Your task to perform on an android device: Check the news Image 0: 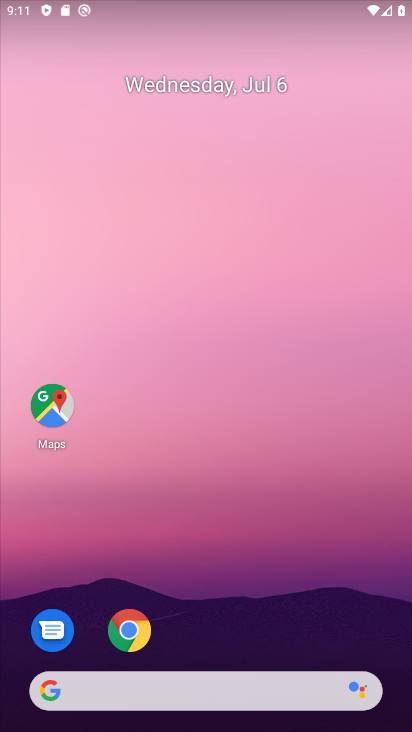
Step 0: drag from (186, 437) to (201, 145)
Your task to perform on an android device: Check the news Image 1: 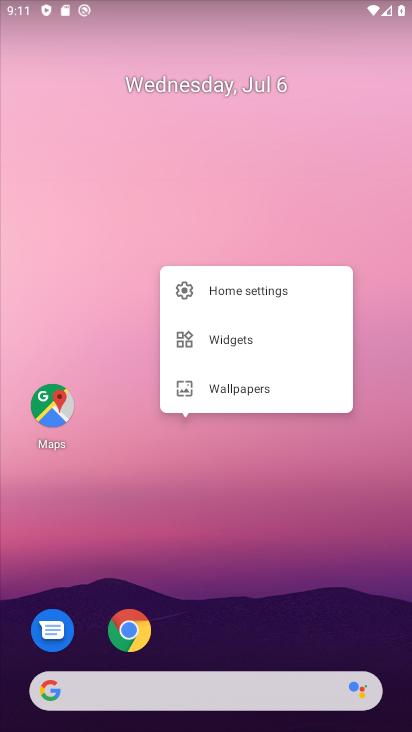
Step 1: drag from (204, 669) to (172, 196)
Your task to perform on an android device: Check the news Image 2: 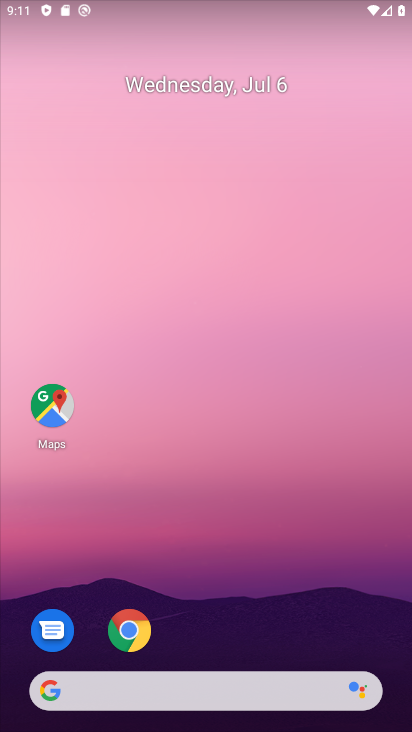
Step 2: click (201, 232)
Your task to perform on an android device: Check the news Image 3: 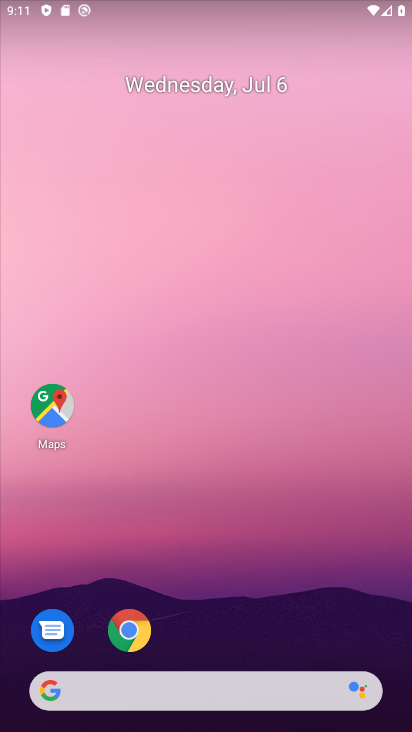
Step 3: drag from (217, 252) to (217, 164)
Your task to perform on an android device: Check the news Image 4: 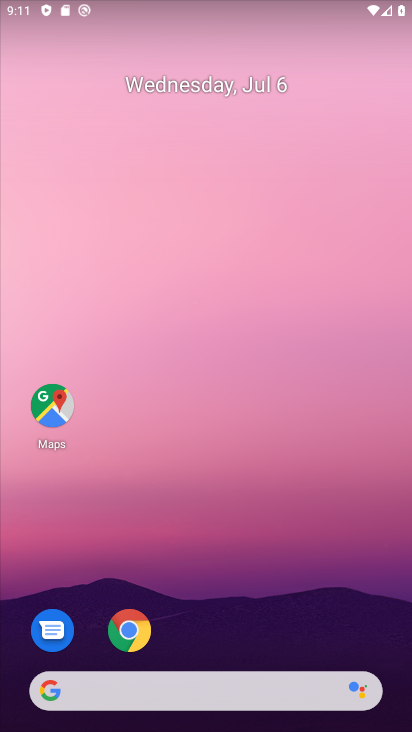
Step 4: drag from (198, 681) to (200, 52)
Your task to perform on an android device: Check the news Image 5: 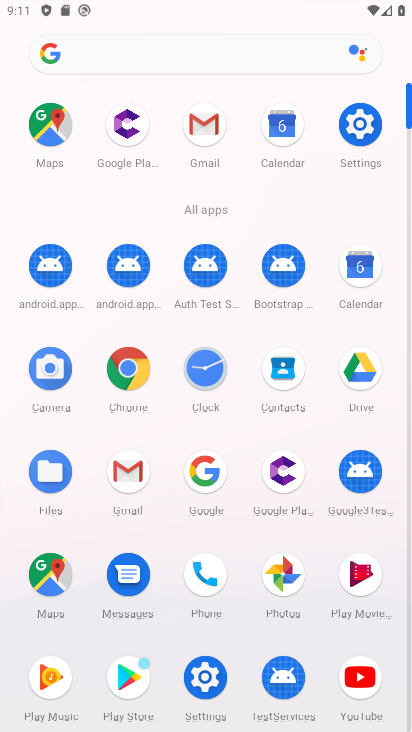
Step 5: click (208, 476)
Your task to perform on an android device: Check the news Image 6: 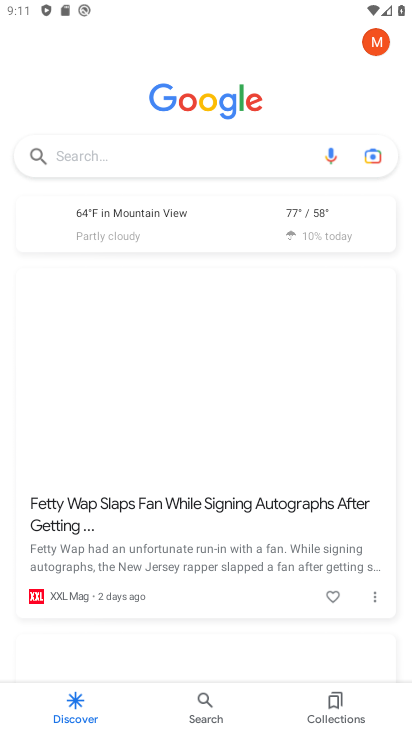
Step 6: click (116, 155)
Your task to perform on an android device: Check the news Image 7: 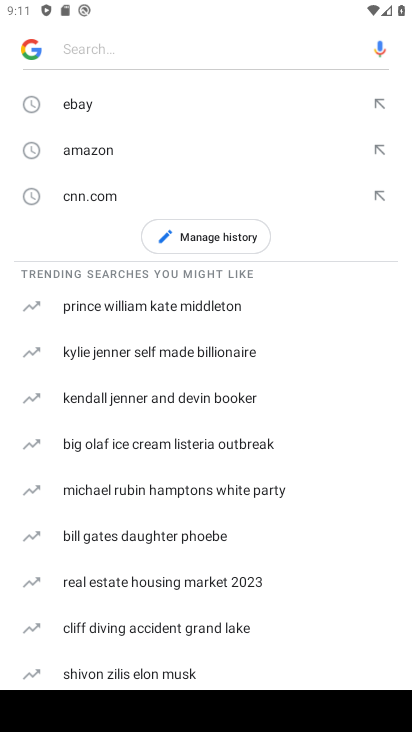
Step 7: type "news"
Your task to perform on an android device: Check the news Image 8: 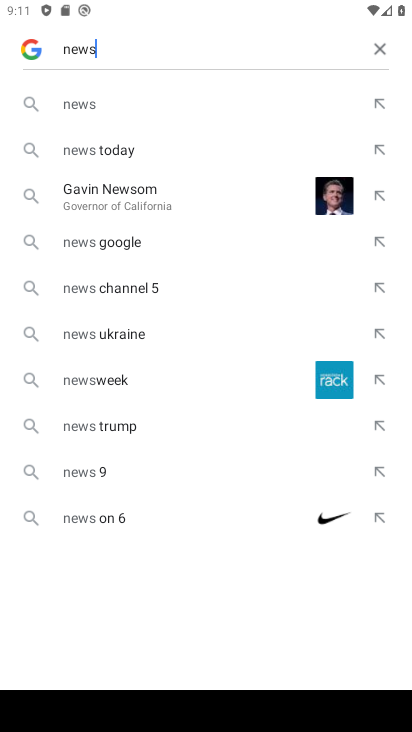
Step 8: click (96, 108)
Your task to perform on an android device: Check the news Image 9: 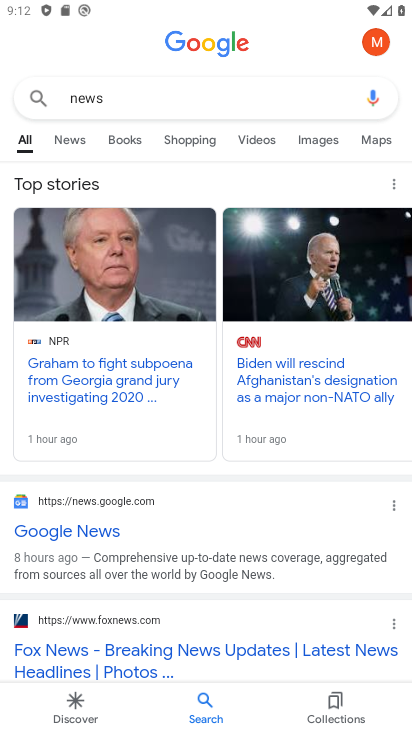
Step 9: task complete